Your task to perform on an android device: Open Maps and search for coffee Image 0: 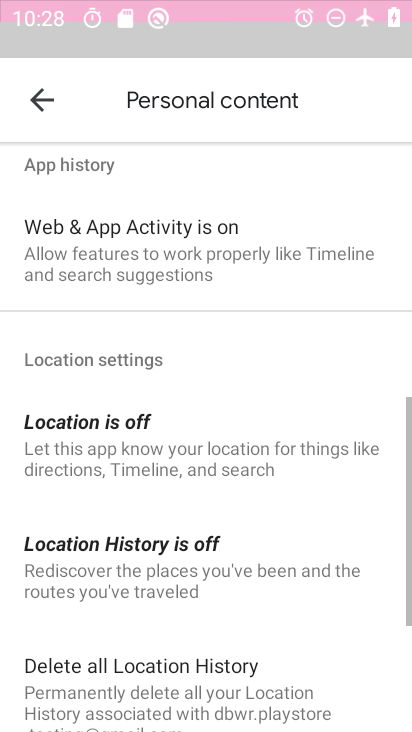
Step 0: click (235, 561)
Your task to perform on an android device: Open Maps and search for coffee Image 1: 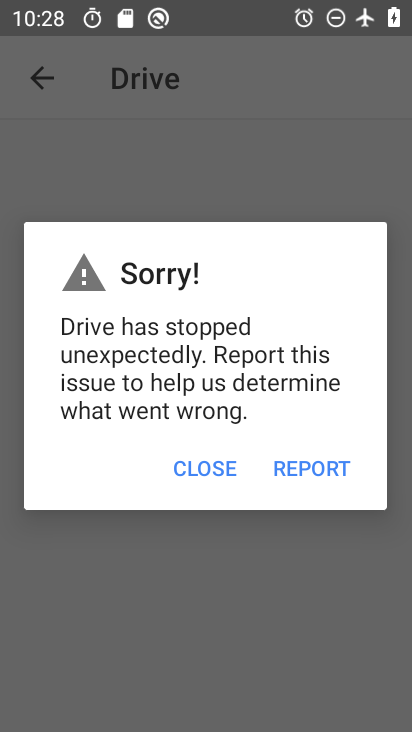
Step 1: press back button
Your task to perform on an android device: Open Maps and search for coffee Image 2: 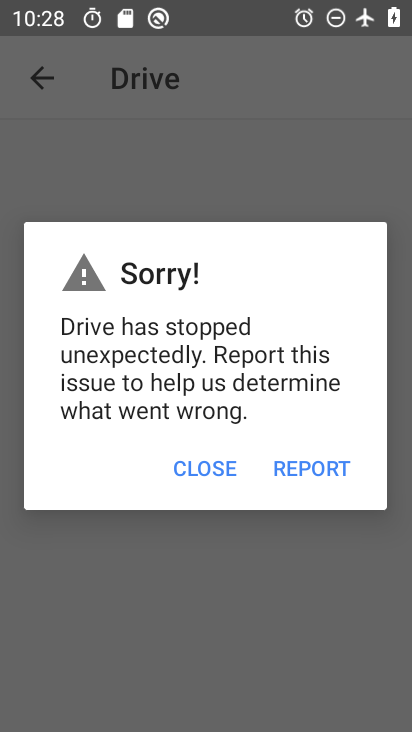
Step 2: press home button
Your task to perform on an android device: Open Maps and search for coffee Image 3: 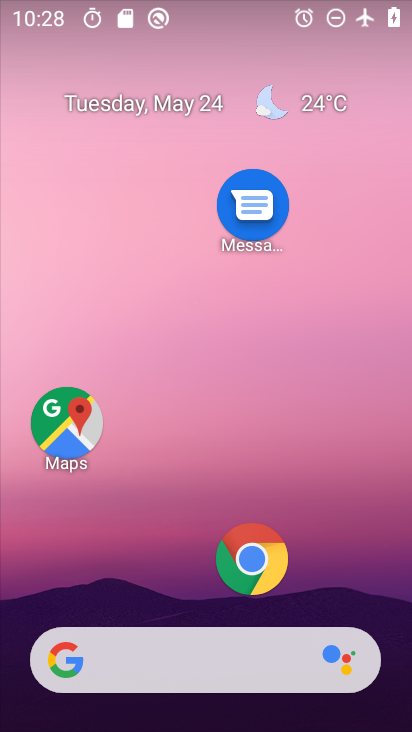
Step 3: click (67, 448)
Your task to perform on an android device: Open Maps and search for coffee Image 4: 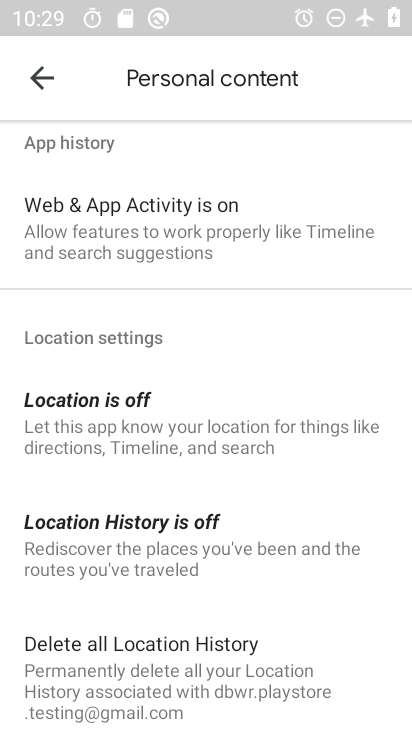
Step 4: click (37, 84)
Your task to perform on an android device: Open Maps and search for coffee Image 5: 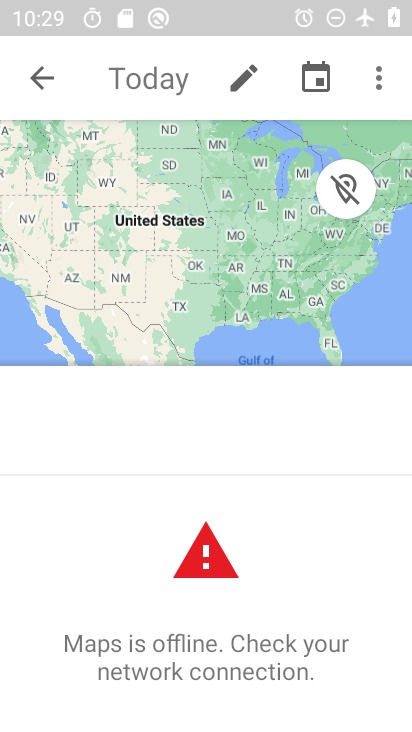
Step 5: click (47, 88)
Your task to perform on an android device: Open Maps and search for coffee Image 6: 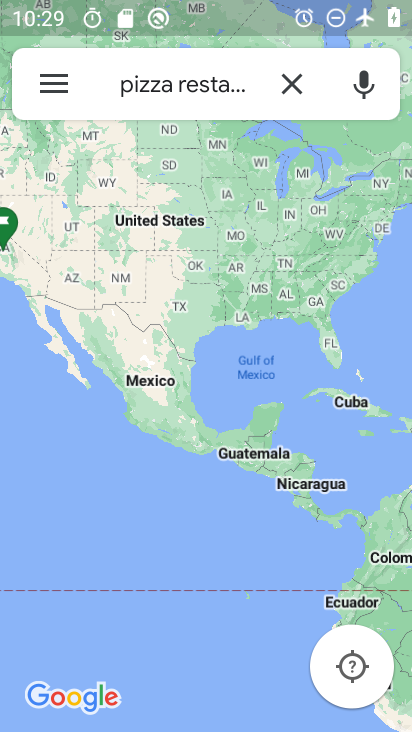
Step 6: drag from (146, 214) to (167, 369)
Your task to perform on an android device: Open Maps and search for coffee Image 7: 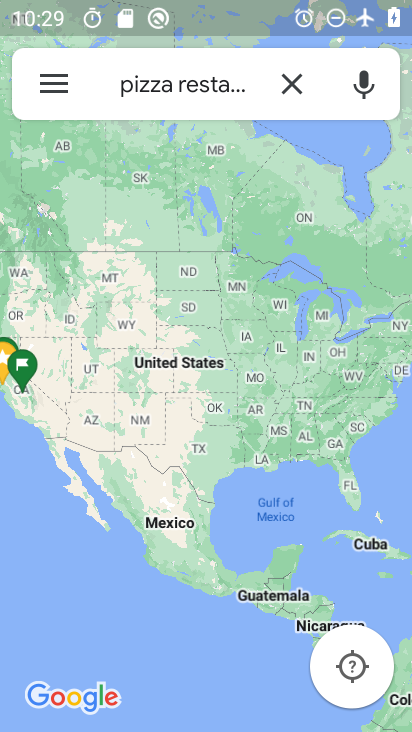
Step 7: click (294, 85)
Your task to perform on an android device: Open Maps and search for coffee Image 8: 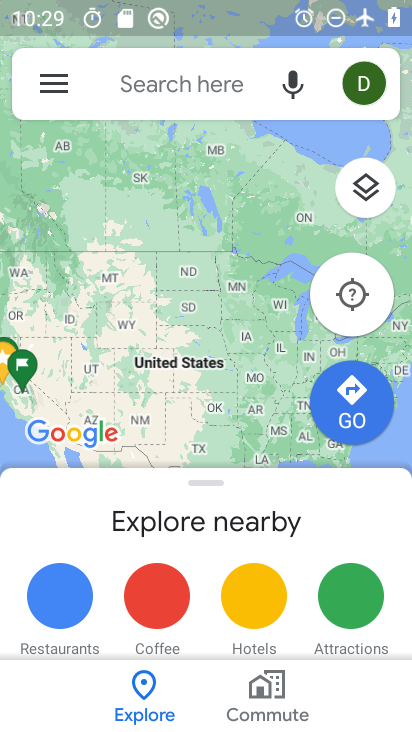
Step 8: click (252, 79)
Your task to perform on an android device: Open Maps and search for coffee Image 9: 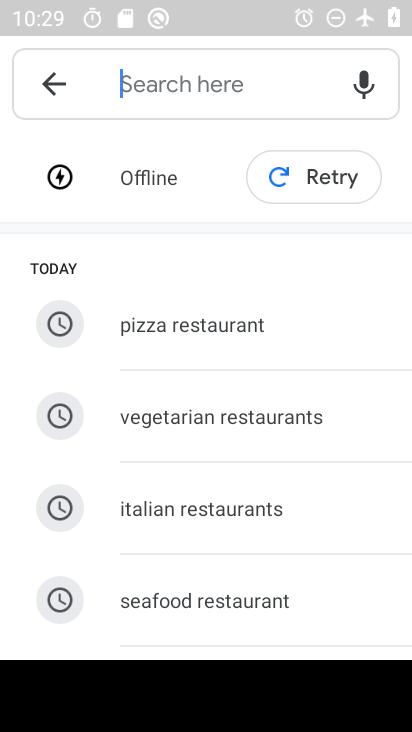
Step 9: type "coffee"
Your task to perform on an android device: Open Maps and search for coffee Image 10: 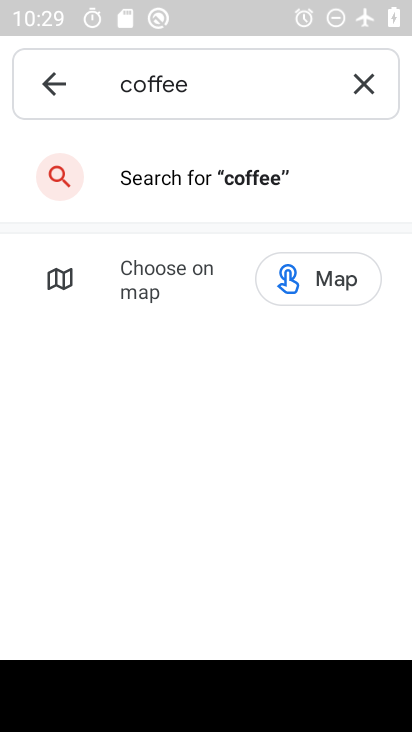
Step 10: task complete